Your task to perform on an android device: Search for Italian restaurants on Maps Image 0: 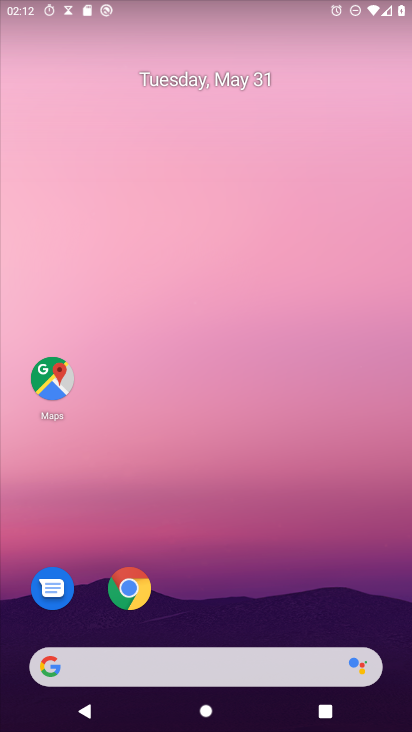
Step 0: drag from (197, 699) to (220, 21)
Your task to perform on an android device: Search for Italian restaurants on Maps Image 1: 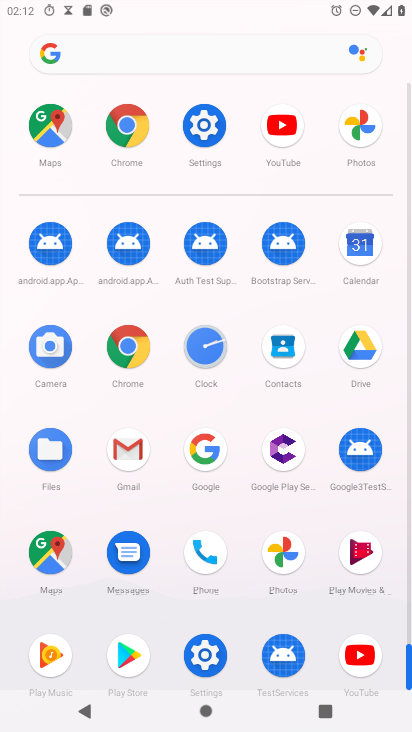
Step 1: click (133, 350)
Your task to perform on an android device: Search for Italian restaurants on Maps Image 2: 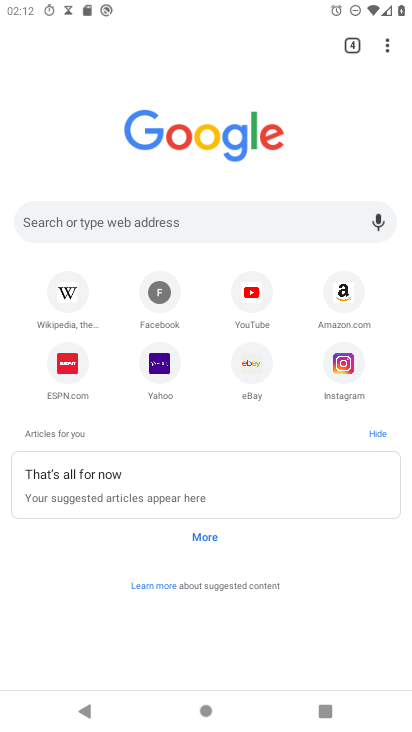
Step 2: press home button
Your task to perform on an android device: Search for Italian restaurants on Maps Image 3: 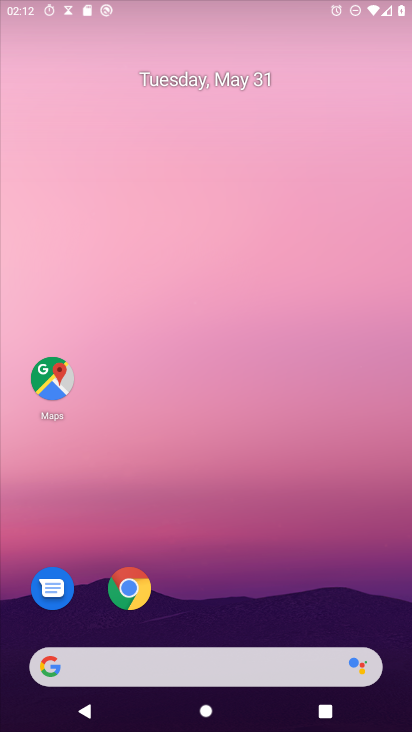
Step 3: drag from (312, 704) to (296, 120)
Your task to perform on an android device: Search for Italian restaurants on Maps Image 4: 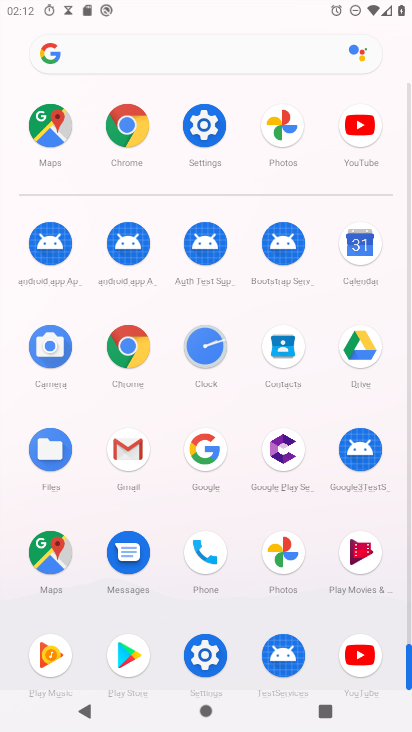
Step 4: click (62, 561)
Your task to perform on an android device: Search for Italian restaurants on Maps Image 5: 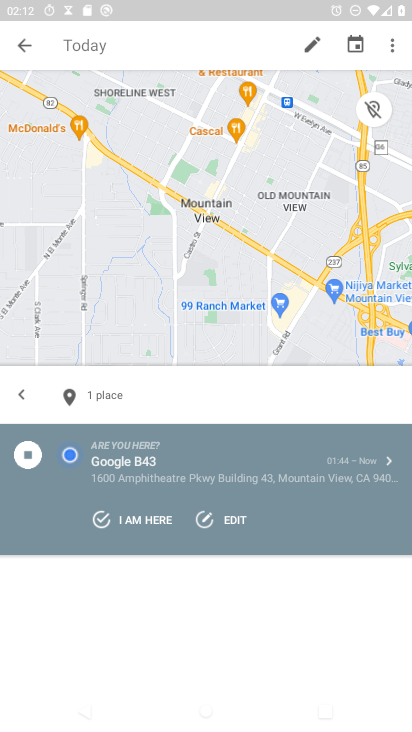
Step 5: press back button
Your task to perform on an android device: Search for Italian restaurants on Maps Image 6: 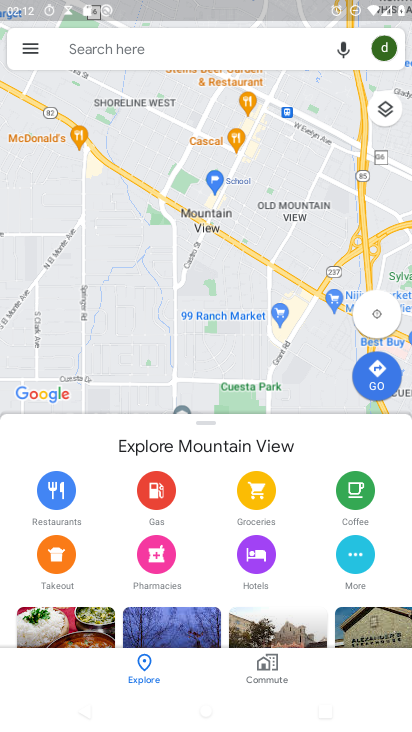
Step 6: click (245, 46)
Your task to perform on an android device: Search for Italian restaurants on Maps Image 7: 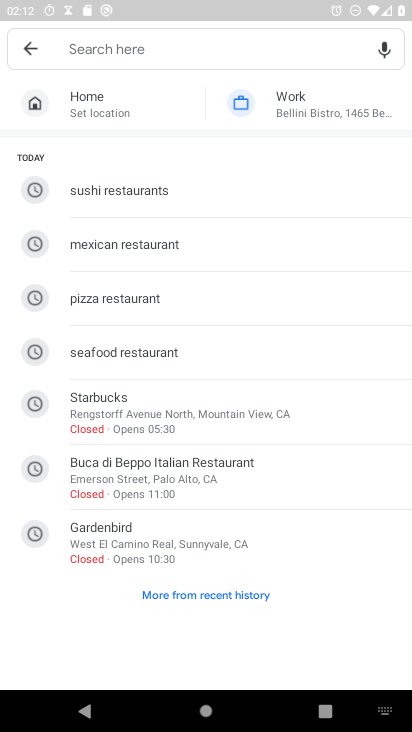
Step 7: type "italian restaurant"
Your task to perform on an android device: Search for Italian restaurants on Maps Image 8: 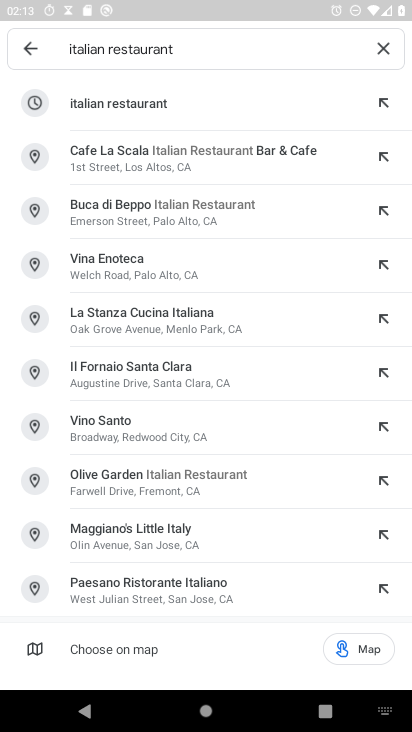
Step 8: click (183, 116)
Your task to perform on an android device: Search for Italian restaurants on Maps Image 9: 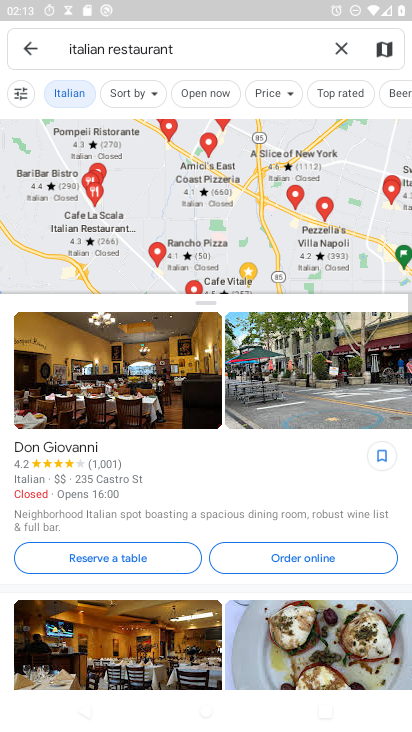
Step 9: task complete